Your task to perform on an android device: open device folders in google photos Image 0: 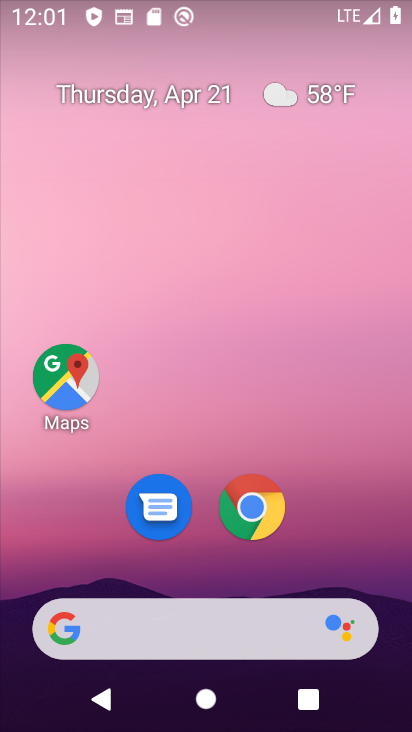
Step 0: drag from (328, 559) to (334, 188)
Your task to perform on an android device: open device folders in google photos Image 1: 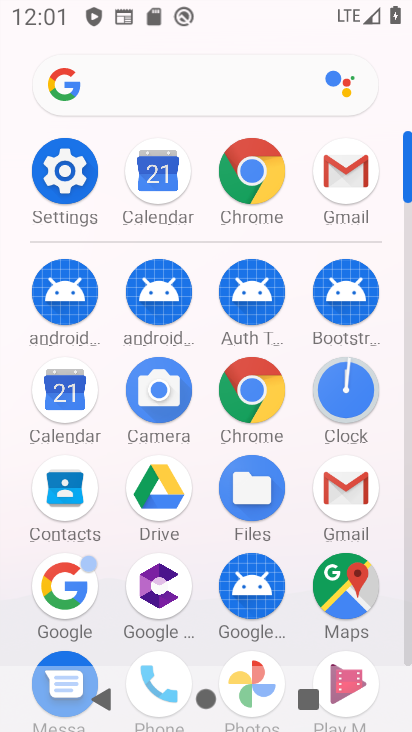
Step 1: drag from (205, 522) to (204, 223)
Your task to perform on an android device: open device folders in google photos Image 2: 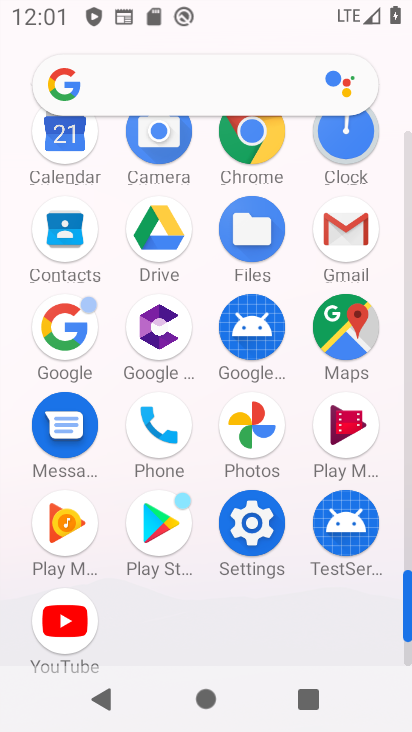
Step 2: click (250, 426)
Your task to perform on an android device: open device folders in google photos Image 3: 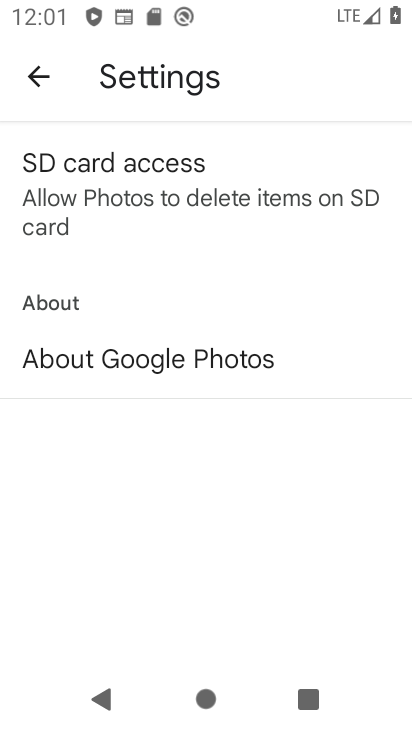
Step 3: click (44, 74)
Your task to perform on an android device: open device folders in google photos Image 4: 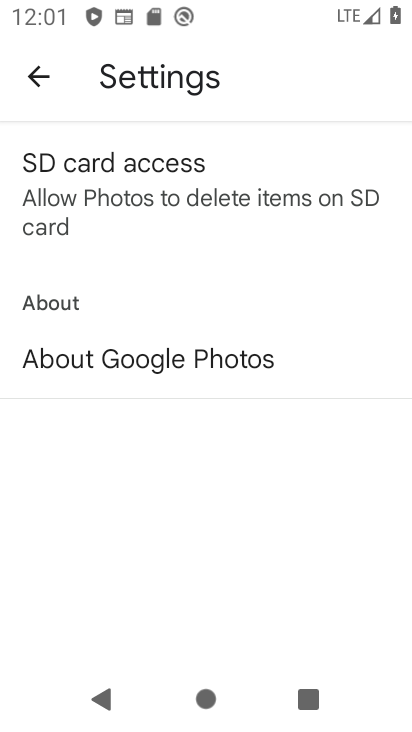
Step 4: click (42, 79)
Your task to perform on an android device: open device folders in google photos Image 5: 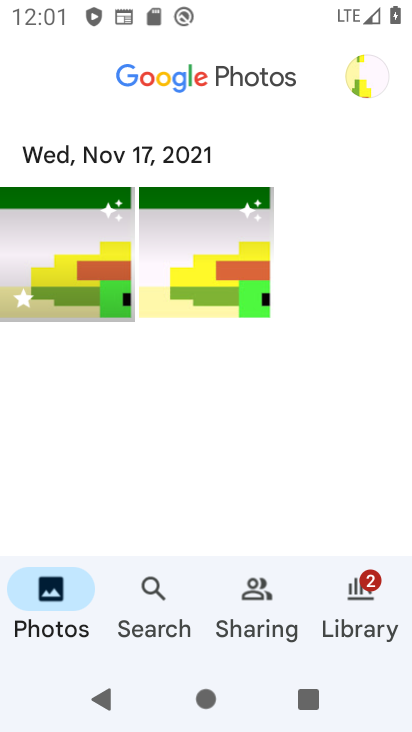
Step 5: click (364, 77)
Your task to perform on an android device: open device folders in google photos Image 6: 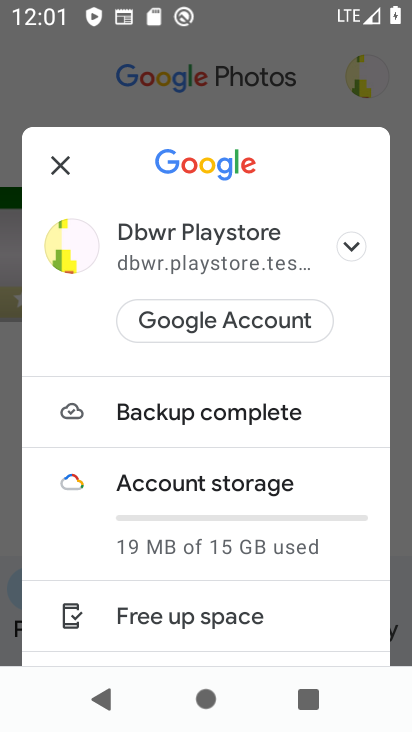
Step 6: drag from (329, 570) to (314, 215)
Your task to perform on an android device: open device folders in google photos Image 7: 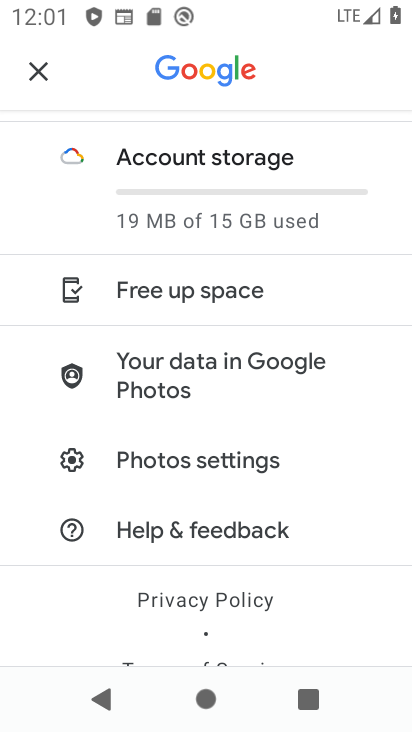
Step 7: drag from (325, 562) to (334, 281)
Your task to perform on an android device: open device folders in google photos Image 8: 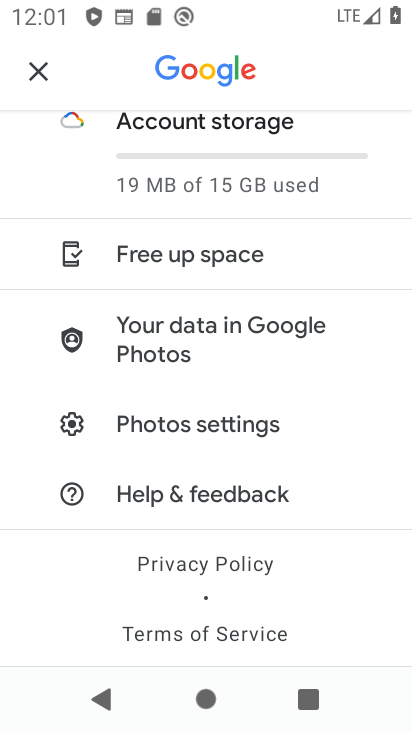
Step 8: click (41, 63)
Your task to perform on an android device: open device folders in google photos Image 9: 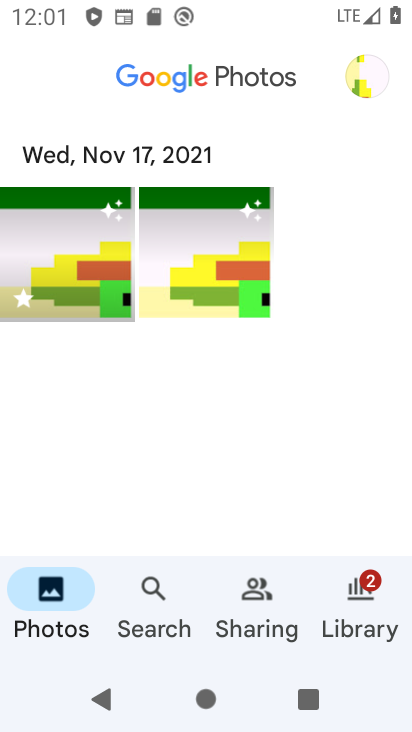
Step 9: click (346, 603)
Your task to perform on an android device: open device folders in google photos Image 10: 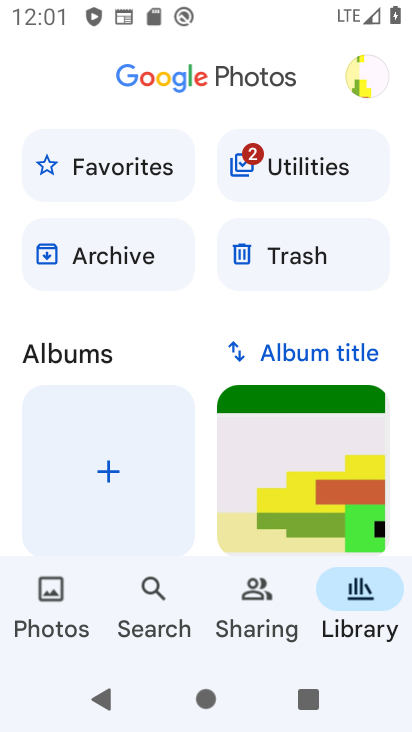
Step 10: task complete